Your task to perform on an android device: turn on the 12-hour format for clock Image 0: 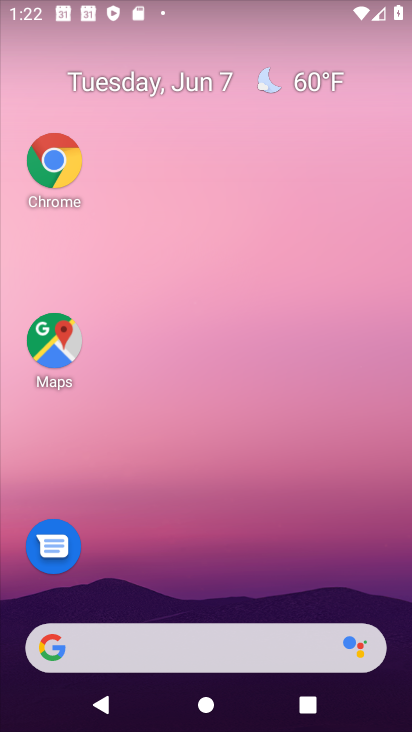
Step 0: drag from (218, 525) to (406, 383)
Your task to perform on an android device: turn on the 12-hour format for clock Image 1: 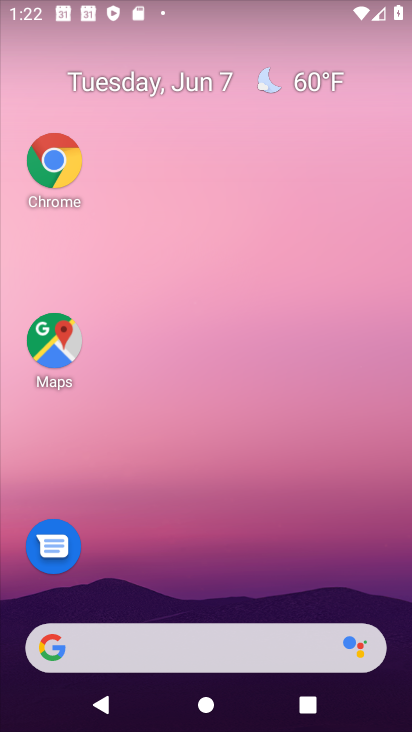
Step 1: drag from (199, 584) to (161, 9)
Your task to perform on an android device: turn on the 12-hour format for clock Image 2: 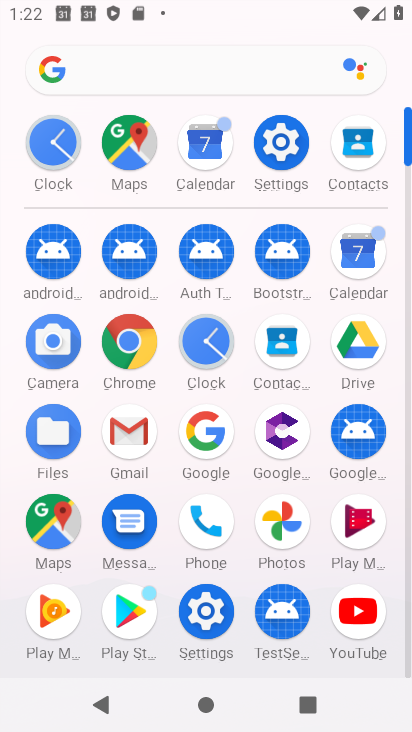
Step 2: click (208, 336)
Your task to perform on an android device: turn on the 12-hour format for clock Image 3: 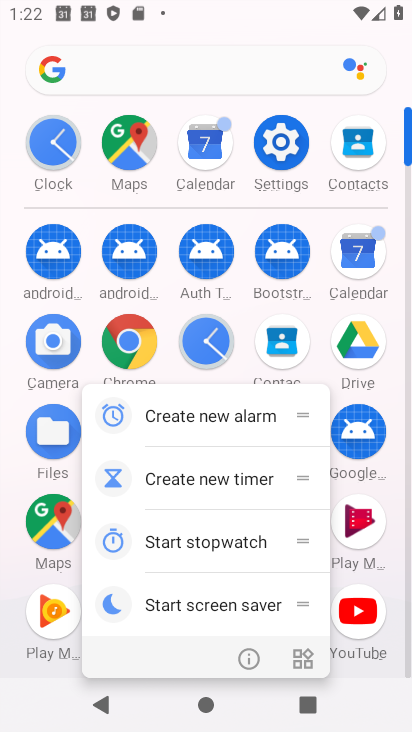
Step 3: click (242, 652)
Your task to perform on an android device: turn on the 12-hour format for clock Image 4: 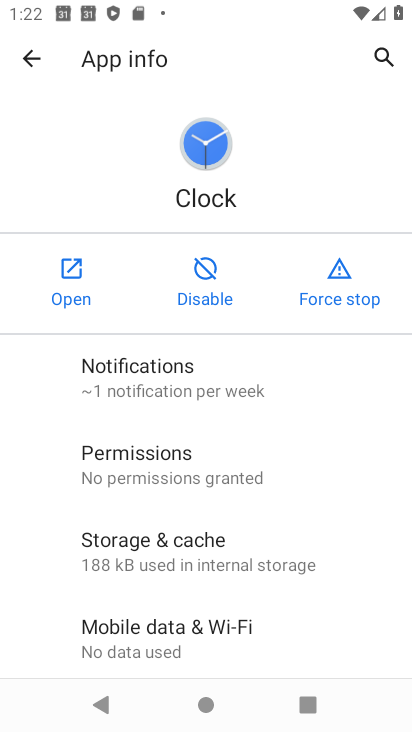
Step 4: click (86, 298)
Your task to perform on an android device: turn on the 12-hour format for clock Image 5: 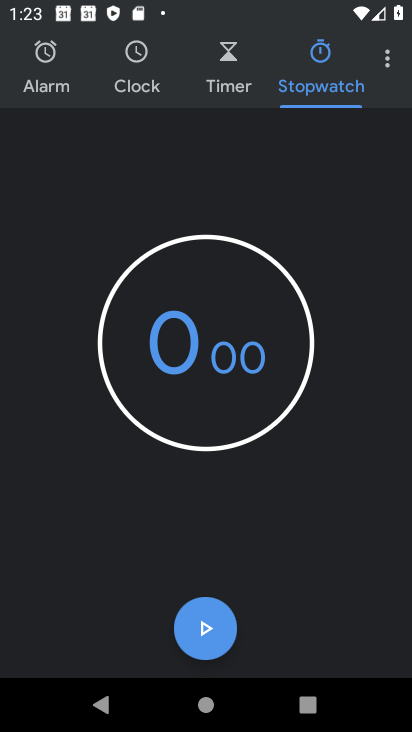
Step 5: click (383, 66)
Your task to perform on an android device: turn on the 12-hour format for clock Image 6: 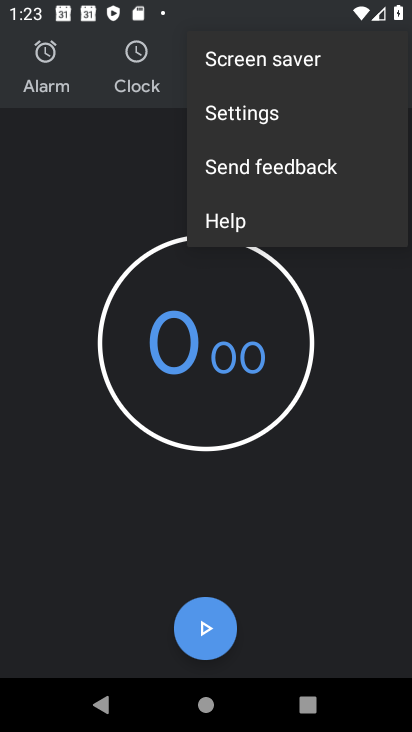
Step 6: click (271, 117)
Your task to perform on an android device: turn on the 12-hour format for clock Image 7: 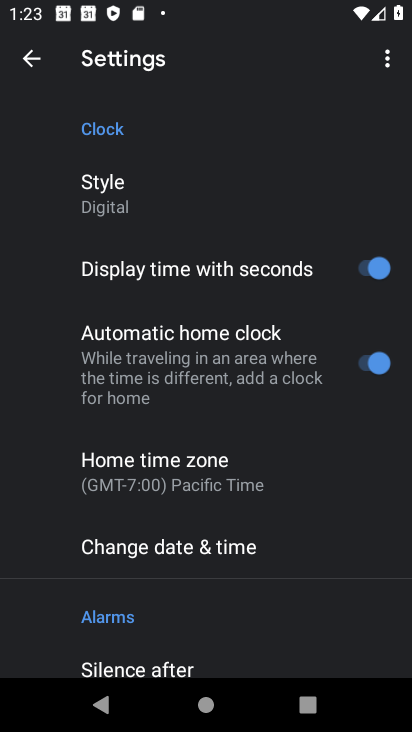
Step 7: drag from (220, 438) to (287, 221)
Your task to perform on an android device: turn on the 12-hour format for clock Image 8: 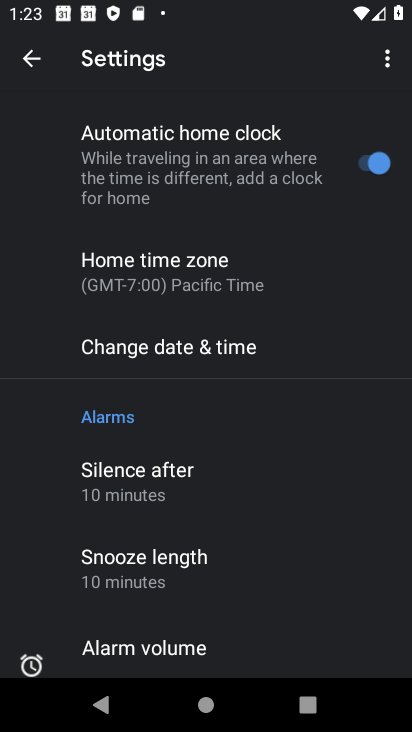
Step 8: click (187, 352)
Your task to perform on an android device: turn on the 12-hour format for clock Image 9: 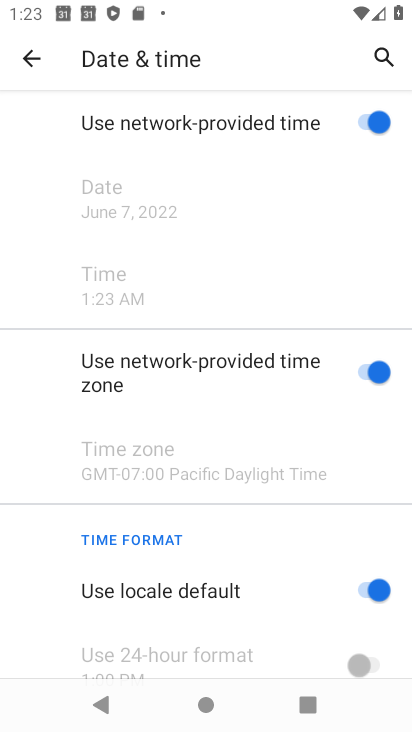
Step 9: task complete